Your task to perform on an android device: manage bookmarks in the chrome app Image 0: 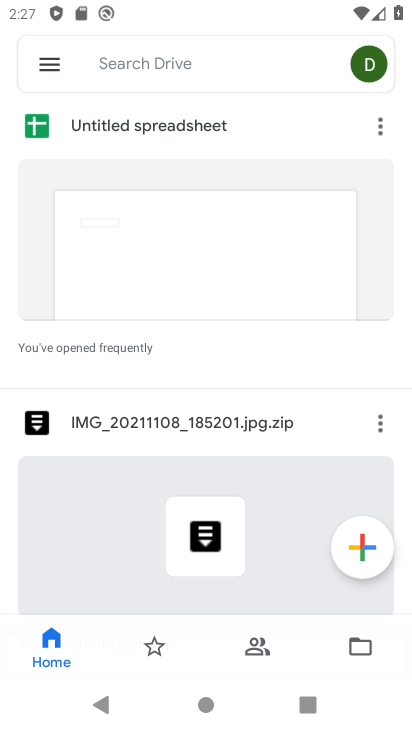
Step 0: press home button
Your task to perform on an android device: manage bookmarks in the chrome app Image 1: 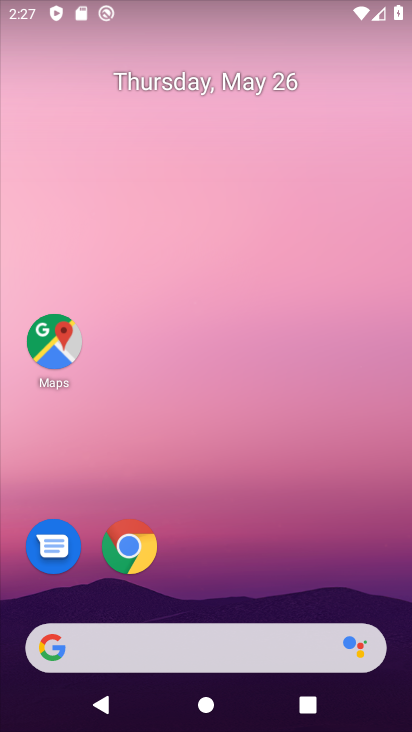
Step 1: drag from (395, 686) to (386, 239)
Your task to perform on an android device: manage bookmarks in the chrome app Image 2: 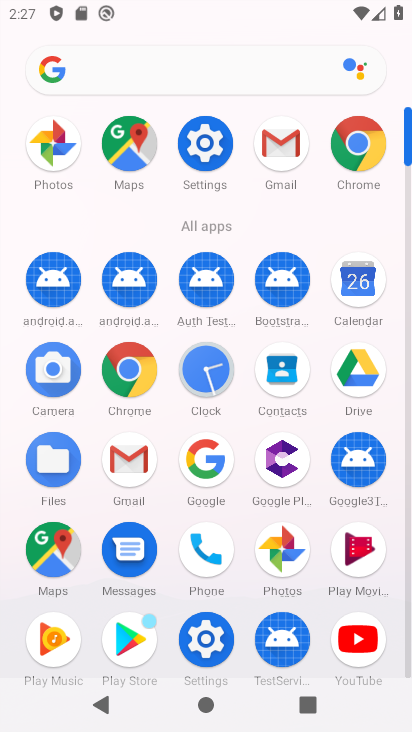
Step 2: click (212, 147)
Your task to perform on an android device: manage bookmarks in the chrome app Image 3: 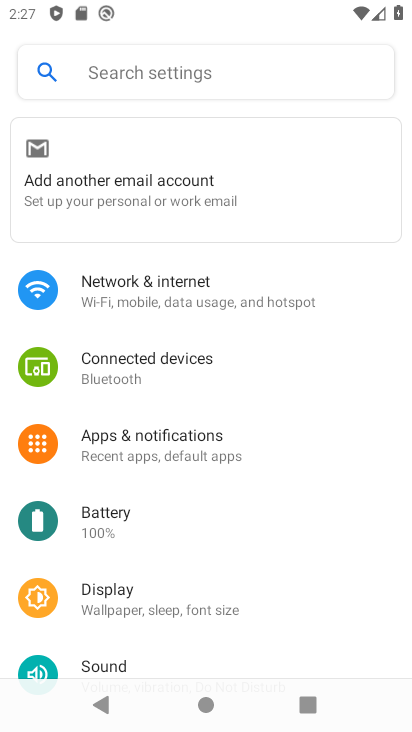
Step 3: press home button
Your task to perform on an android device: manage bookmarks in the chrome app Image 4: 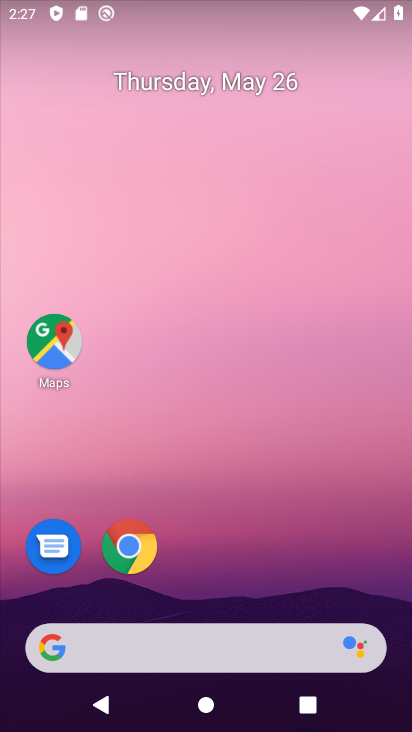
Step 4: click (137, 545)
Your task to perform on an android device: manage bookmarks in the chrome app Image 5: 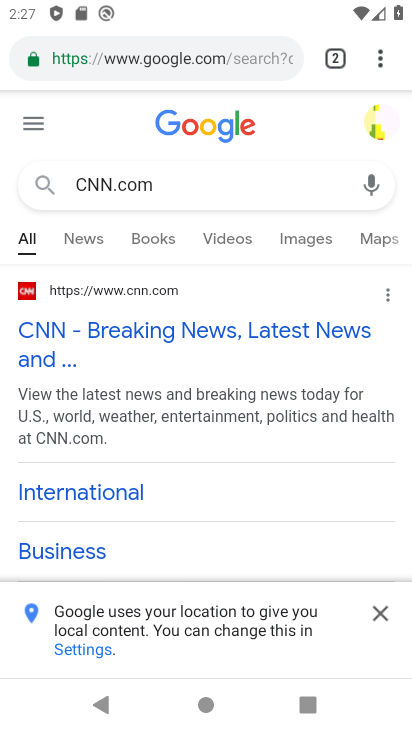
Step 5: click (382, 52)
Your task to perform on an android device: manage bookmarks in the chrome app Image 6: 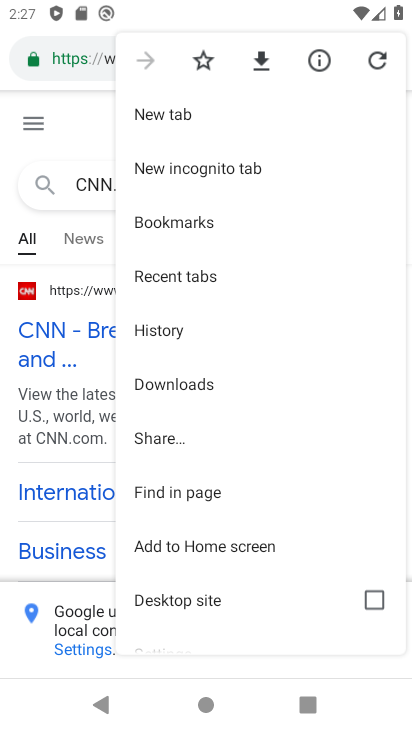
Step 6: drag from (309, 609) to (351, 240)
Your task to perform on an android device: manage bookmarks in the chrome app Image 7: 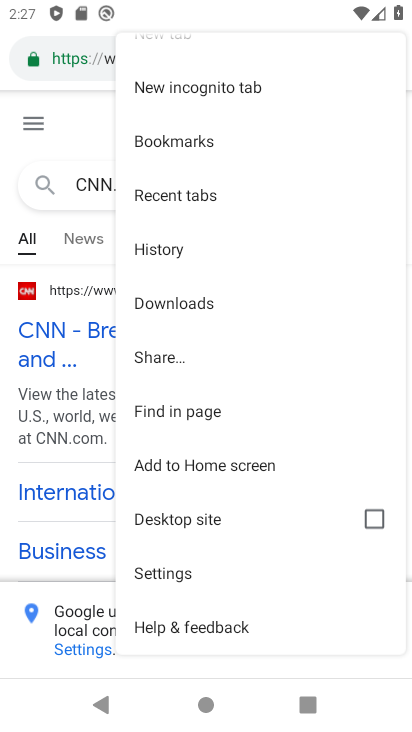
Step 7: click (174, 140)
Your task to perform on an android device: manage bookmarks in the chrome app Image 8: 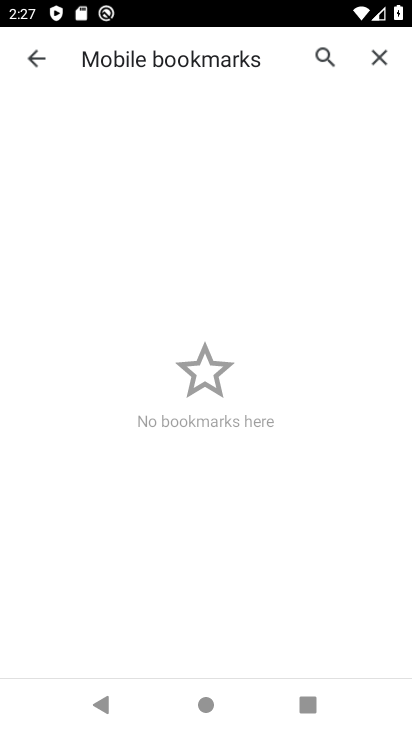
Step 8: task complete